Your task to perform on an android device: Open Google Chrome and click the shortcut for Amazon.com Image 0: 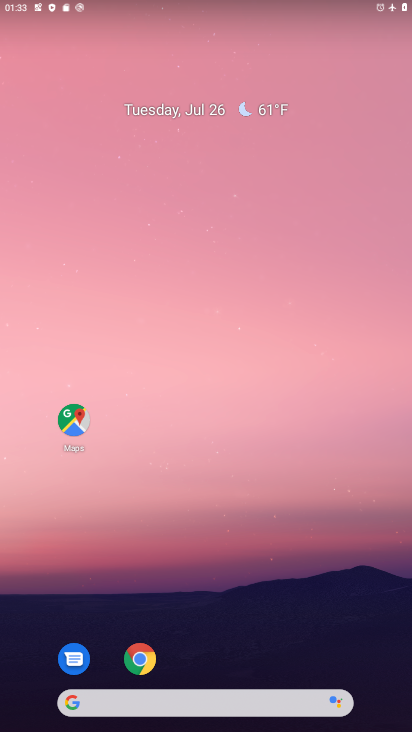
Step 0: drag from (339, 663) to (241, 59)
Your task to perform on an android device: Open Google Chrome and click the shortcut for Amazon.com Image 1: 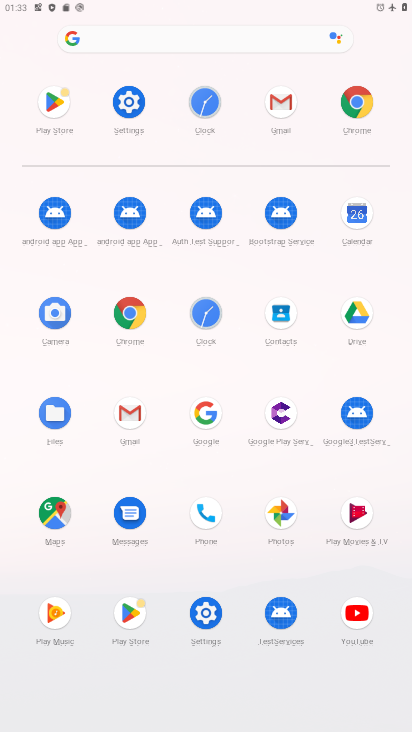
Step 1: click (350, 100)
Your task to perform on an android device: Open Google Chrome and click the shortcut for Amazon.com Image 2: 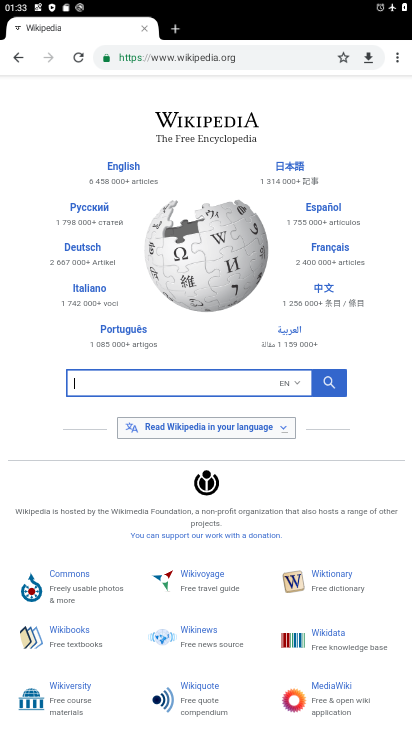
Step 2: click (176, 26)
Your task to perform on an android device: Open Google Chrome and click the shortcut for Amazon.com Image 3: 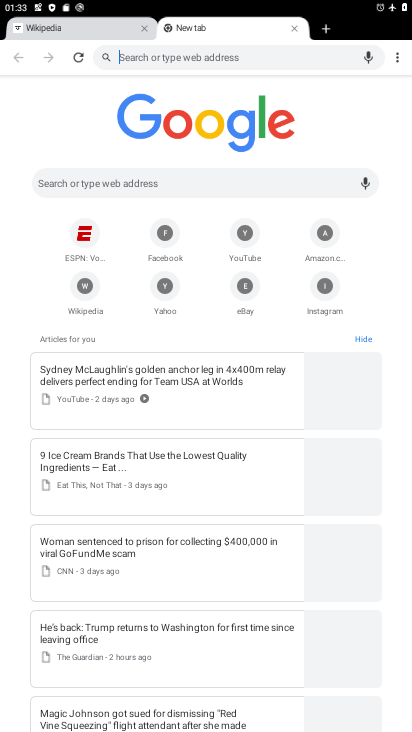
Step 3: click (320, 238)
Your task to perform on an android device: Open Google Chrome and click the shortcut for Amazon.com Image 4: 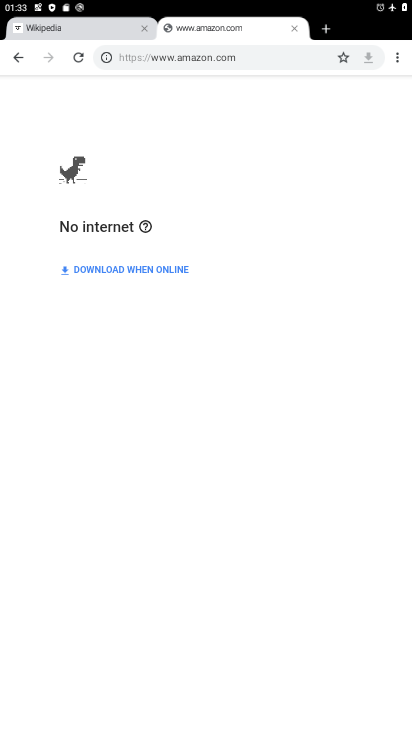
Step 4: task complete